Your task to perform on an android device: install app "Calculator" Image 0: 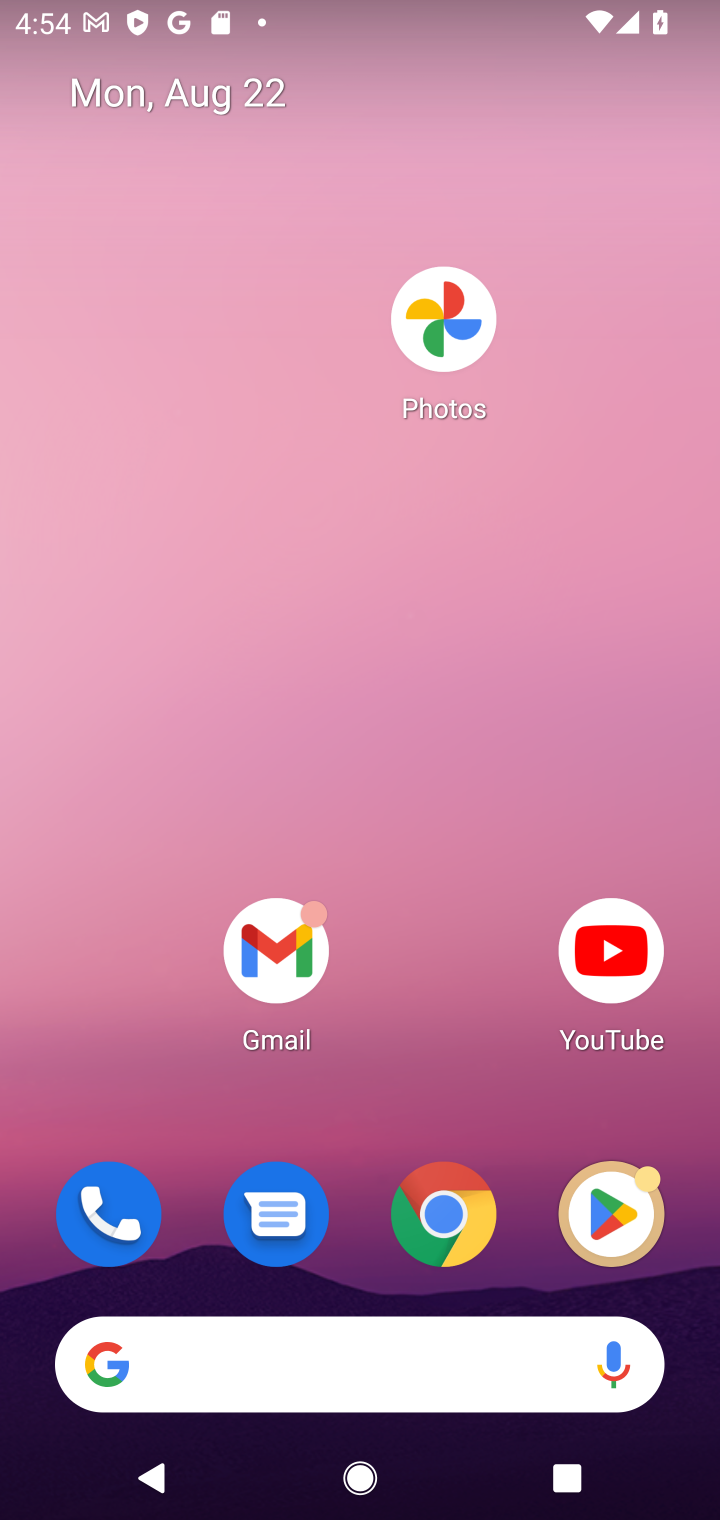
Step 0: click (615, 1213)
Your task to perform on an android device: install app "Calculator" Image 1: 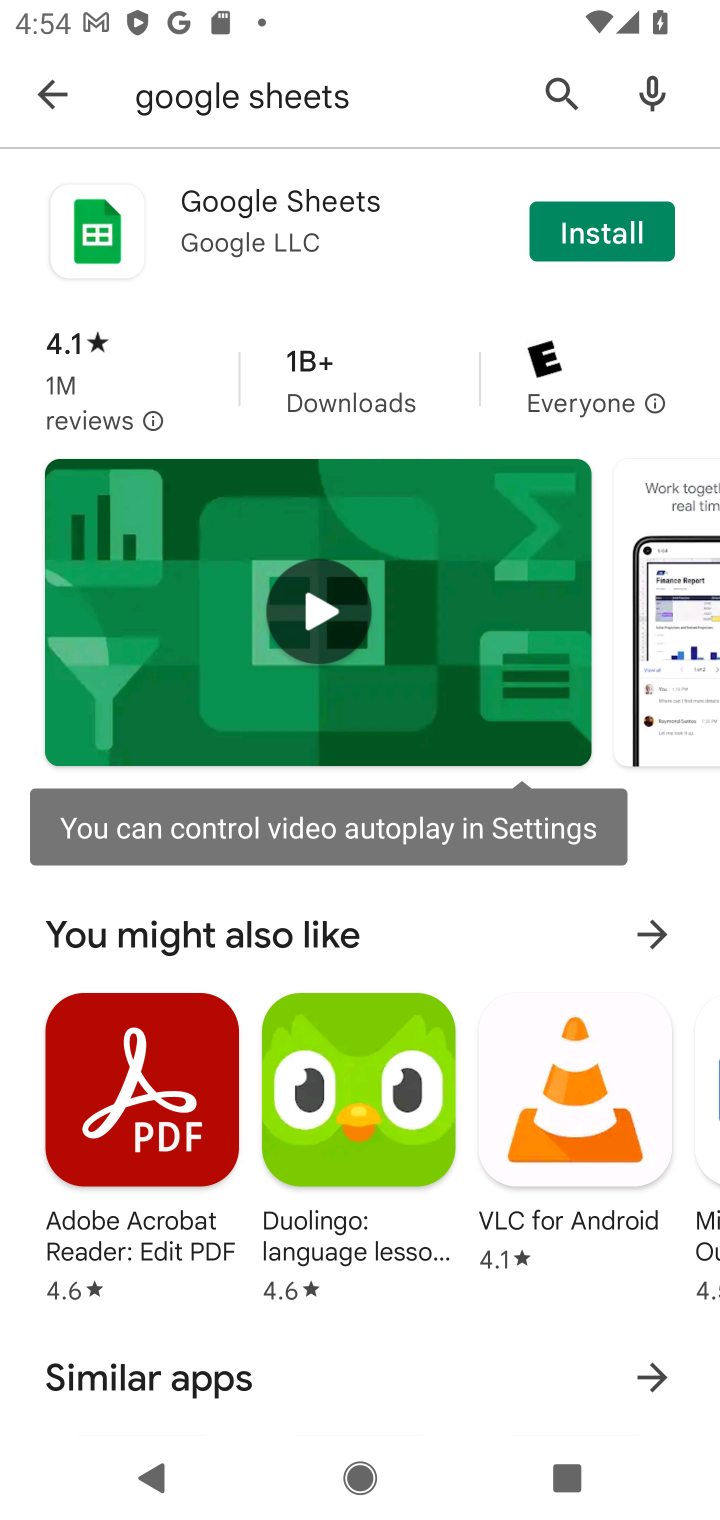
Step 1: click (564, 83)
Your task to perform on an android device: install app "Calculator" Image 2: 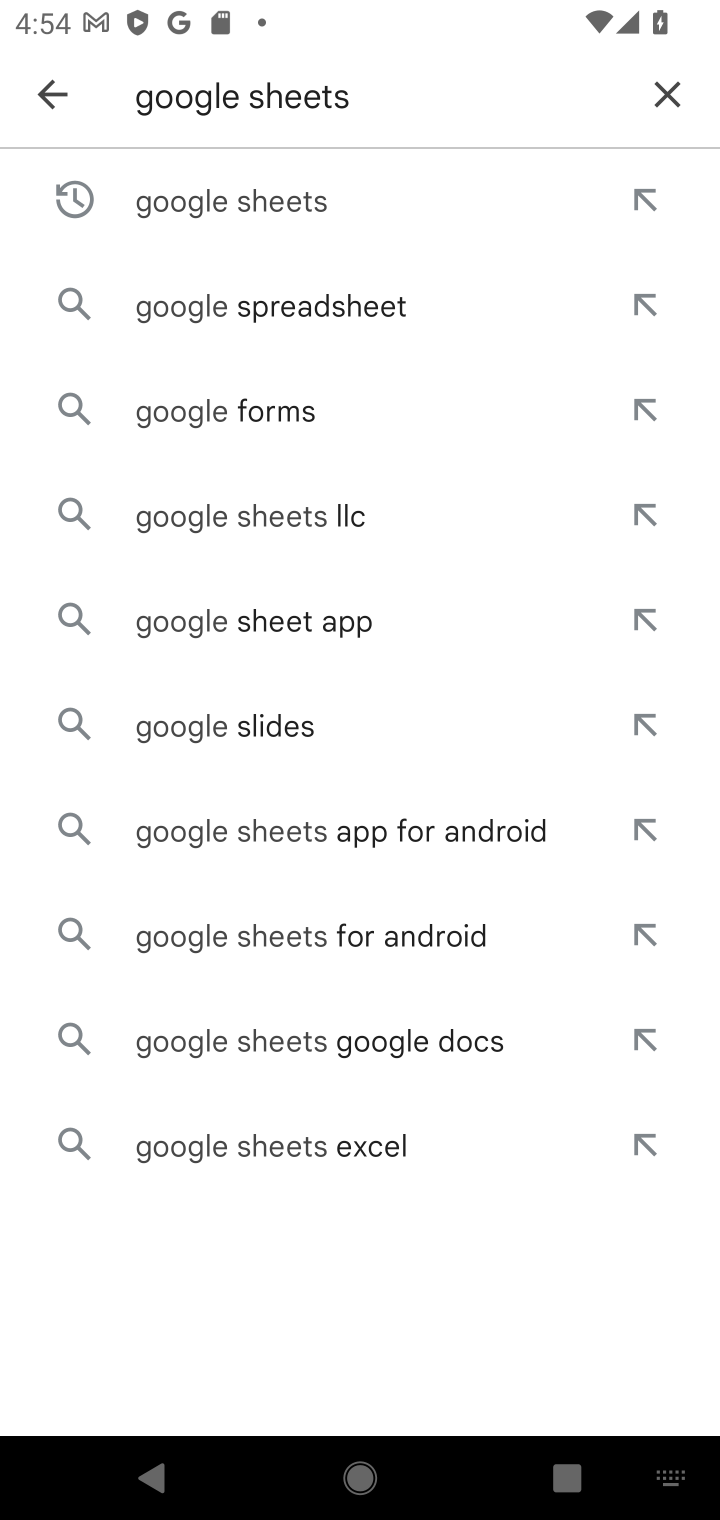
Step 2: click (664, 98)
Your task to perform on an android device: install app "Calculator" Image 3: 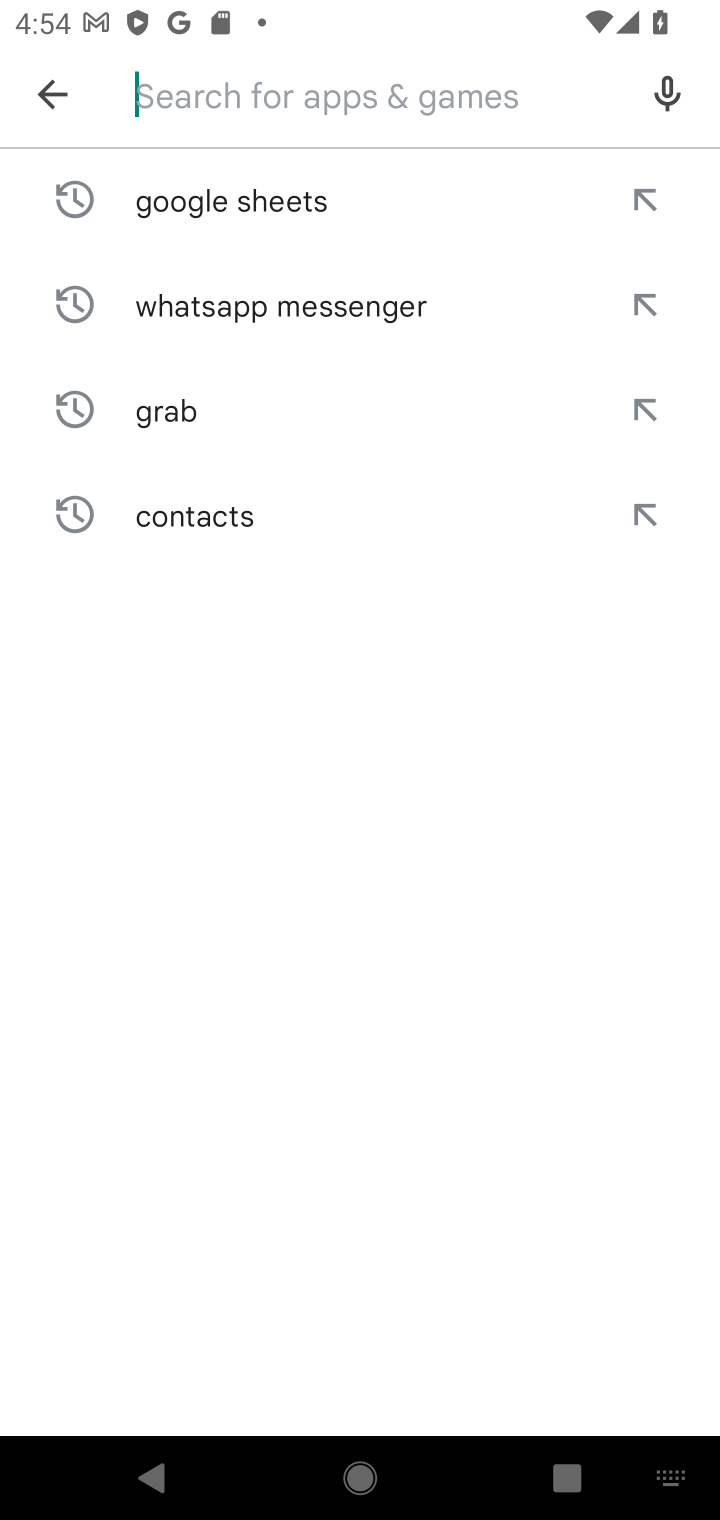
Step 3: type "Calculator"
Your task to perform on an android device: install app "Calculator" Image 4: 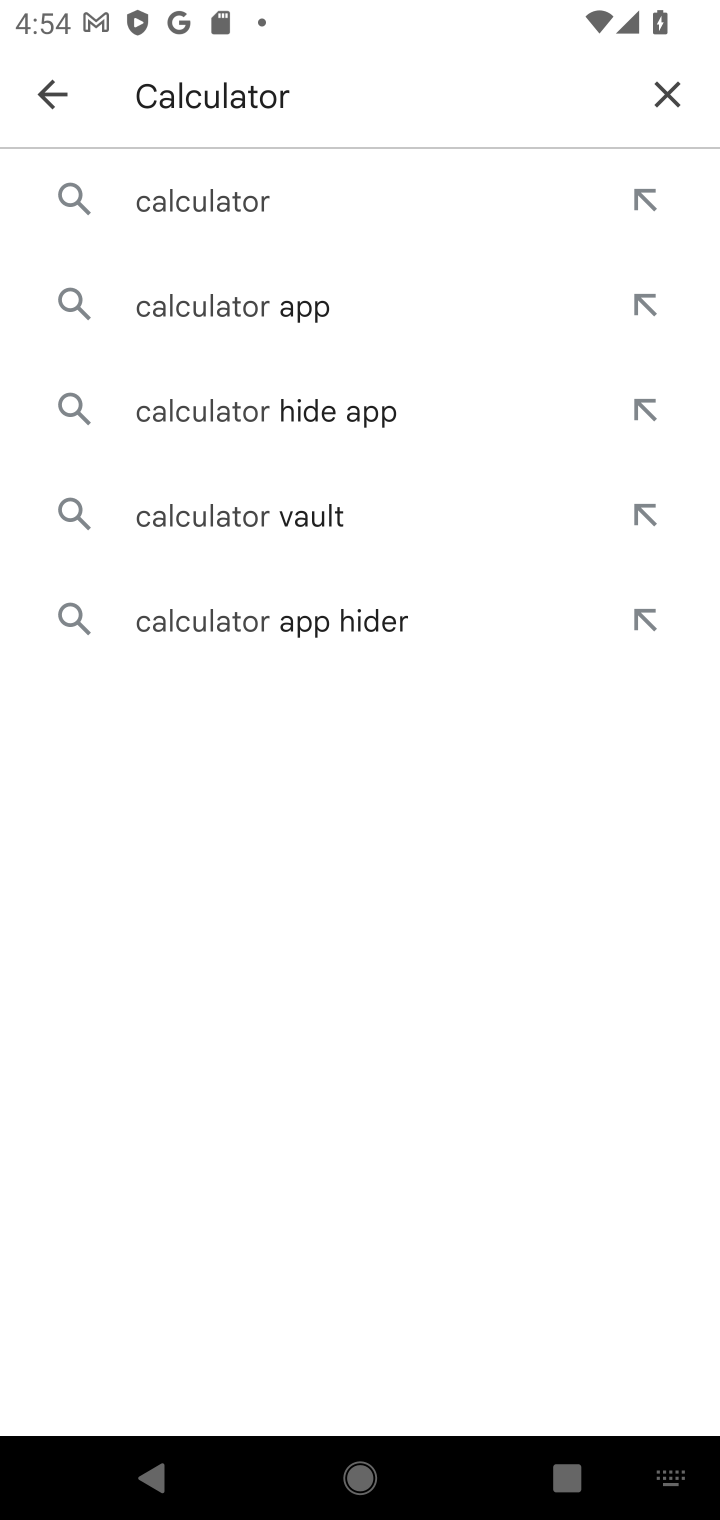
Step 4: click (164, 181)
Your task to perform on an android device: install app "Calculator" Image 5: 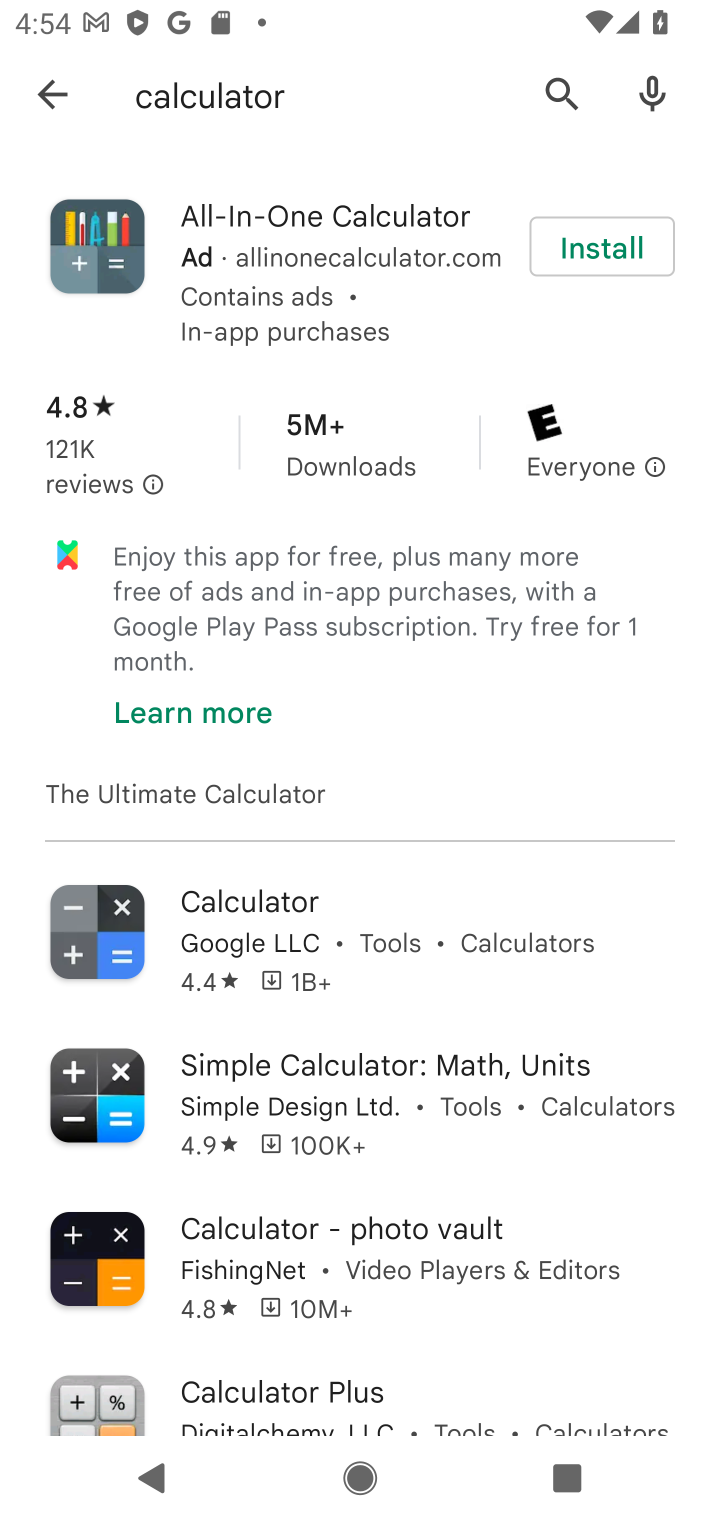
Step 5: click (265, 925)
Your task to perform on an android device: install app "Calculator" Image 6: 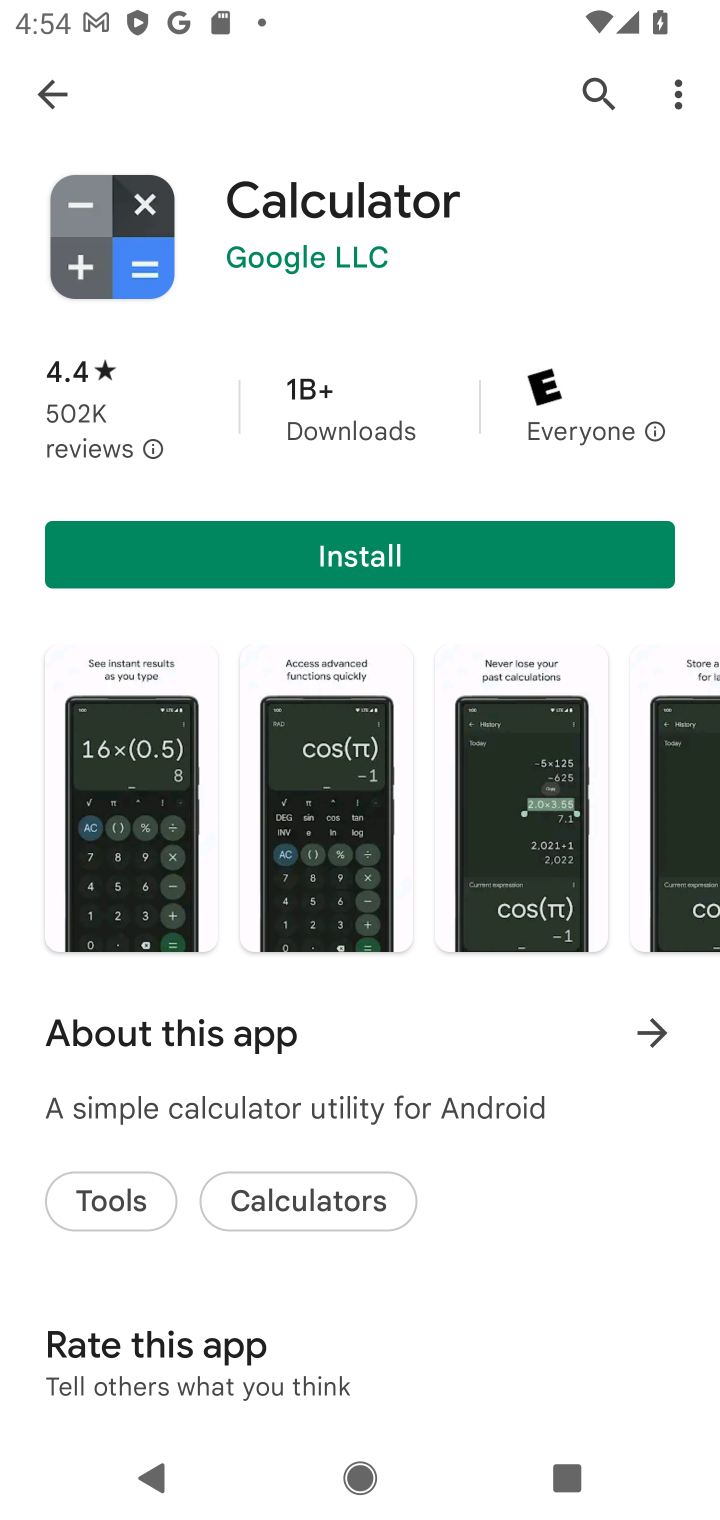
Step 6: click (367, 557)
Your task to perform on an android device: install app "Calculator" Image 7: 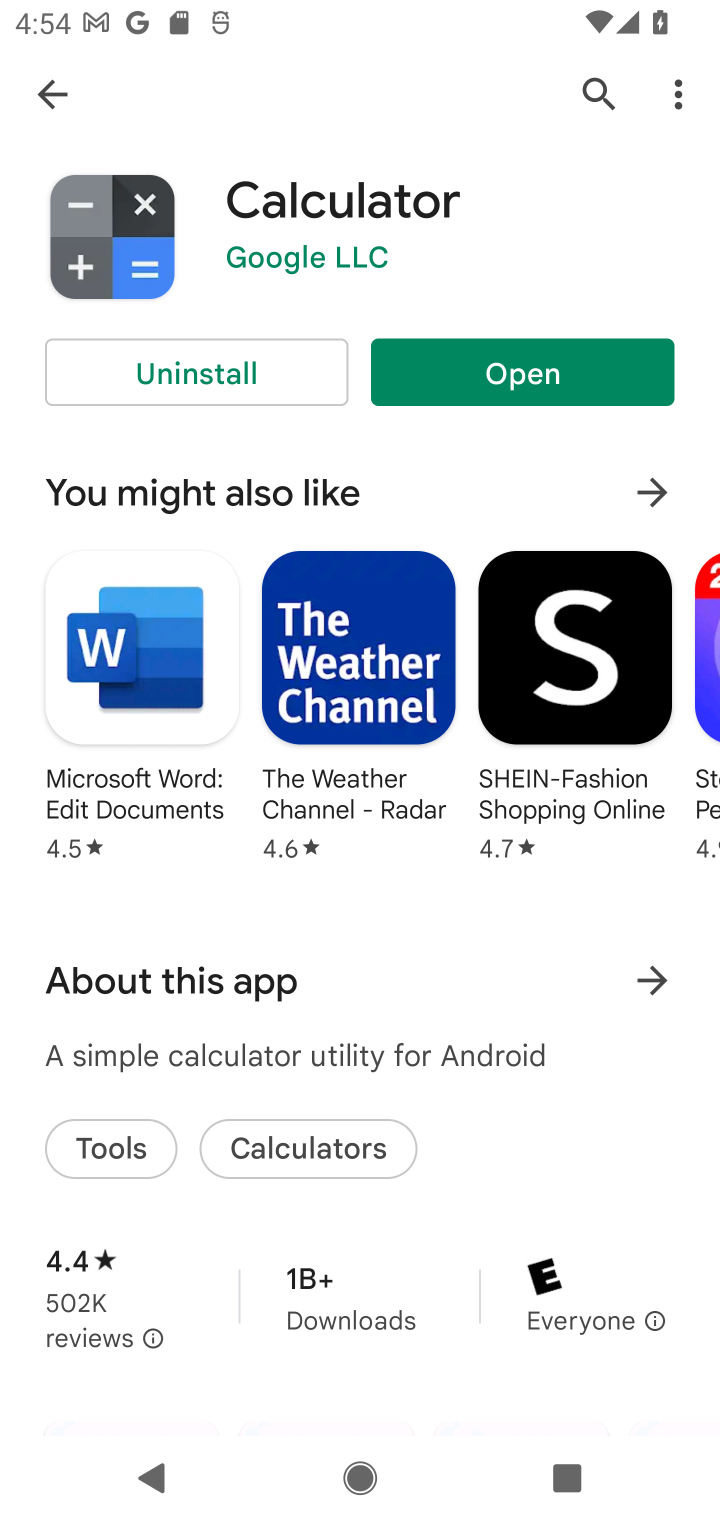
Step 7: task complete